Your task to perform on an android device: turn on javascript in the chrome app Image 0: 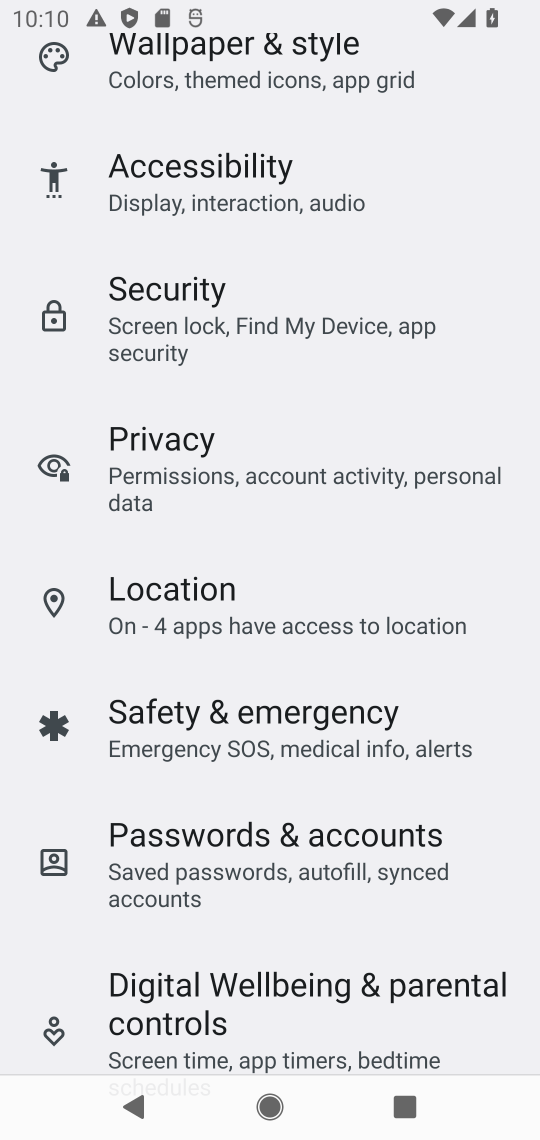
Step 0: press home button
Your task to perform on an android device: turn on javascript in the chrome app Image 1: 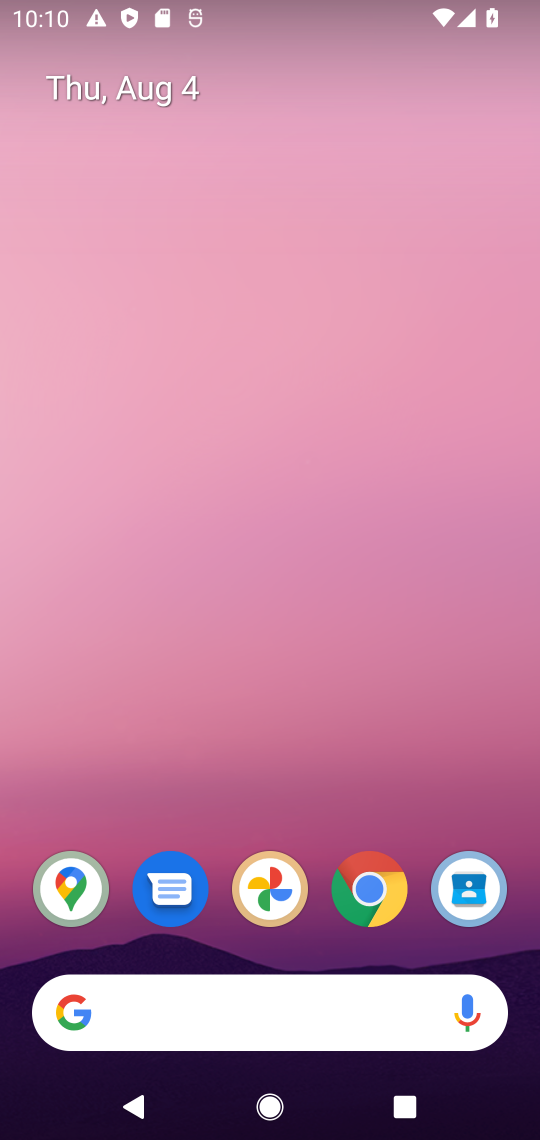
Step 1: drag from (431, 787) to (425, 274)
Your task to perform on an android device: turn on javascript in the chrome app Image 2: 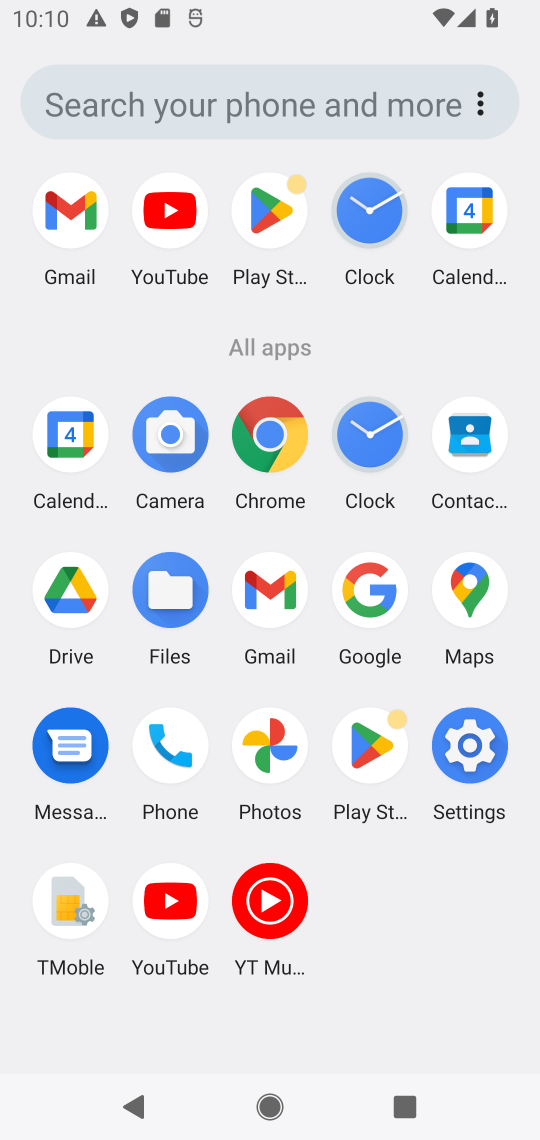
Step 2: click (270, 451)
Your task to perform on an android device: turn on javascript in the chrome app Image 3: 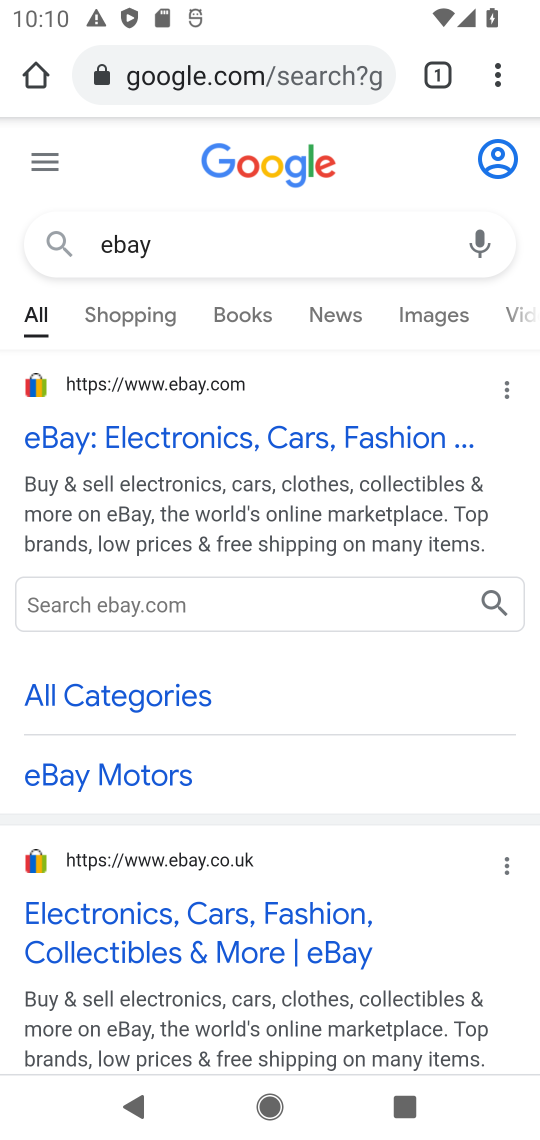
Step 3: click (495, 82)
Your task to perform on an android device: turn on javascript in the chrome app Image 4: 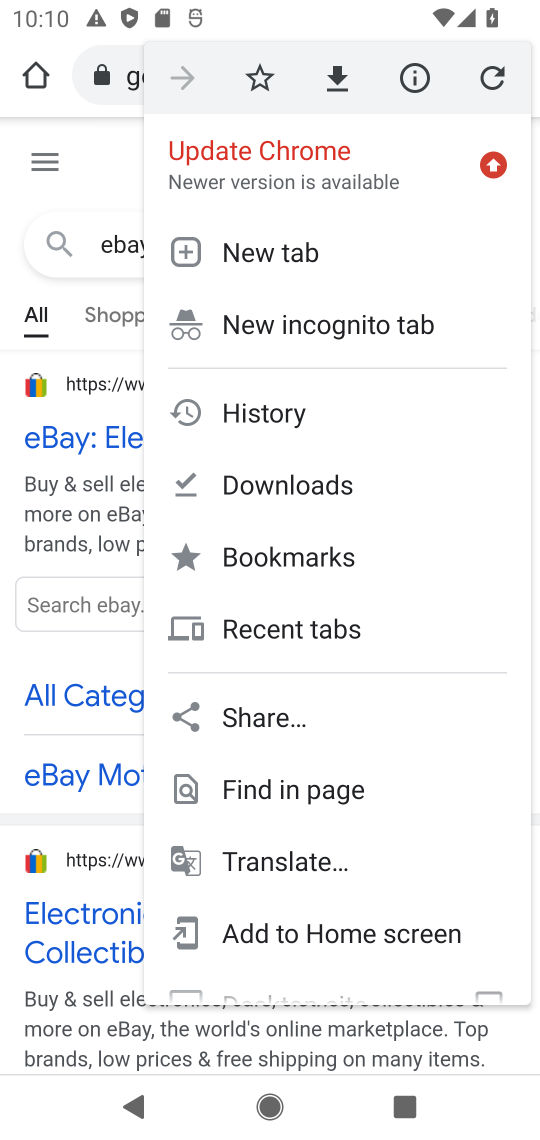
Step 4: drag from (427, 722) to (446, 542)
Your task to perform on an android device: turn on javascript in the chrome app Image 5: 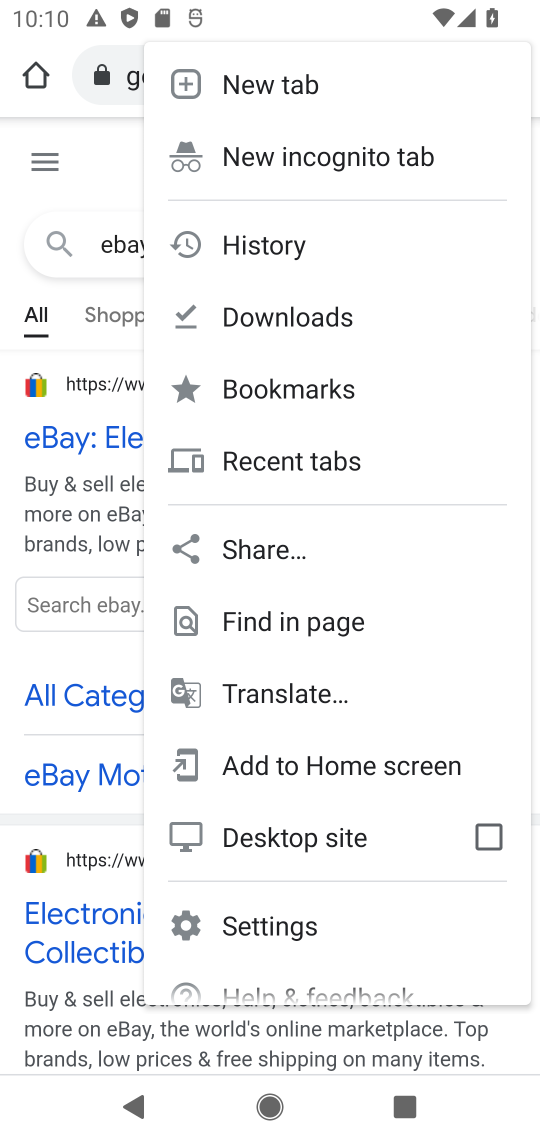
Step 5: drag from (423, 826) to (431, 650)
Your task to perform on an android device: turn on javascript in the chrome app Image 6: 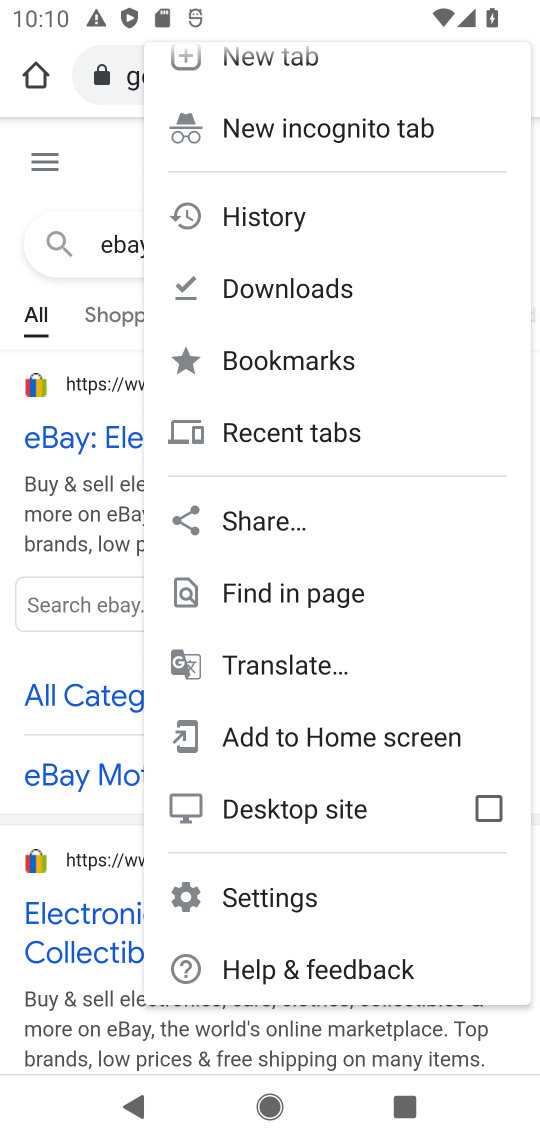
Step 6: click (286, 902)
Your task to perform on an android device: turn on javascript in the chrome app Image 7: 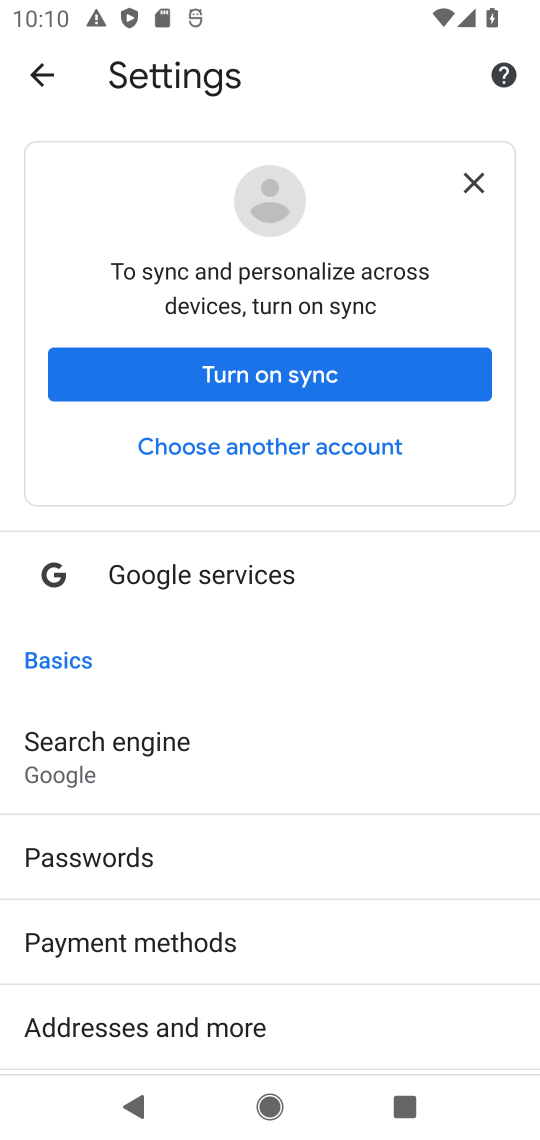
Step 7: drag from (356, 951) to (381, 743)
Your task to perform on an android device: turn on javascript in the chrome app Image 8: 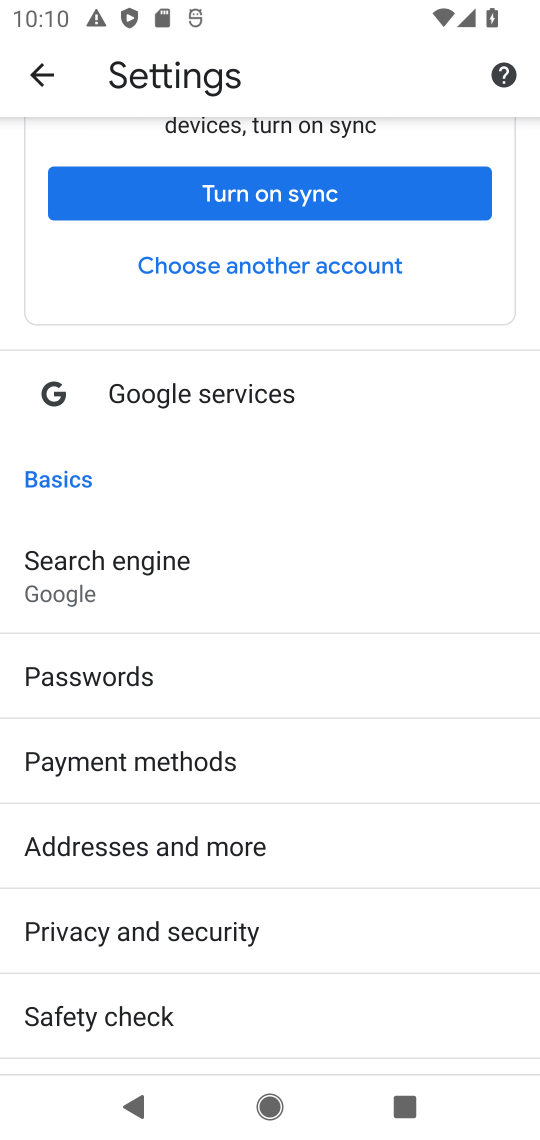
Step 8: drag from (384, 939) to (390, 711)
Your task to perform on an android device: turn on javascript in the chrome app Image 9: 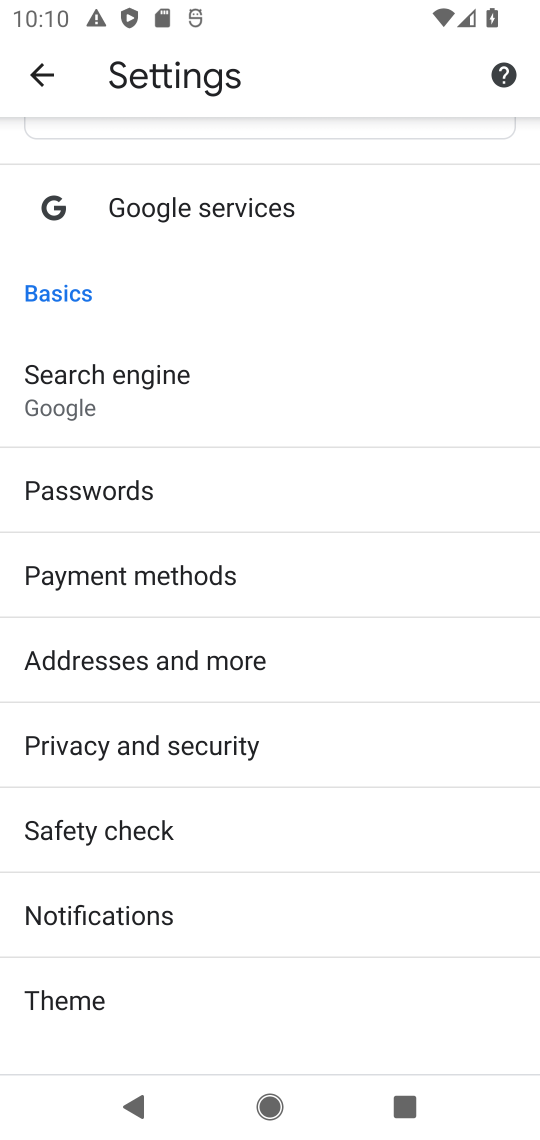
Step 9: drag from (386, 827) to (405, 629)
Your task to perform on an android device: turn on javascript in the chrome app Image 10: 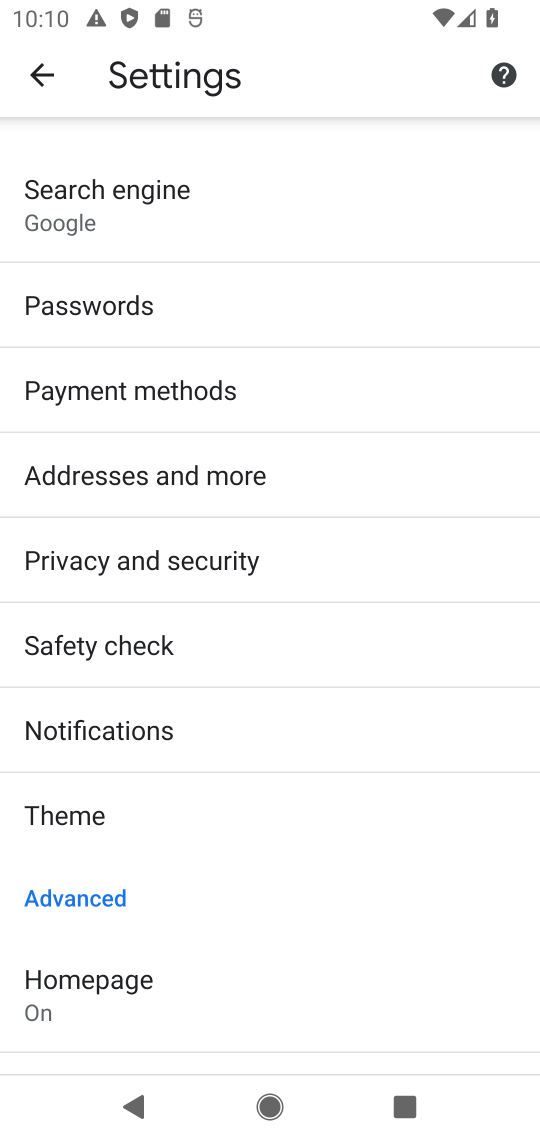
Step 10: drag from (391, 823) to (409, 623)
Your task to perform on an android device: turn on javascript in the chrome app Image 11: 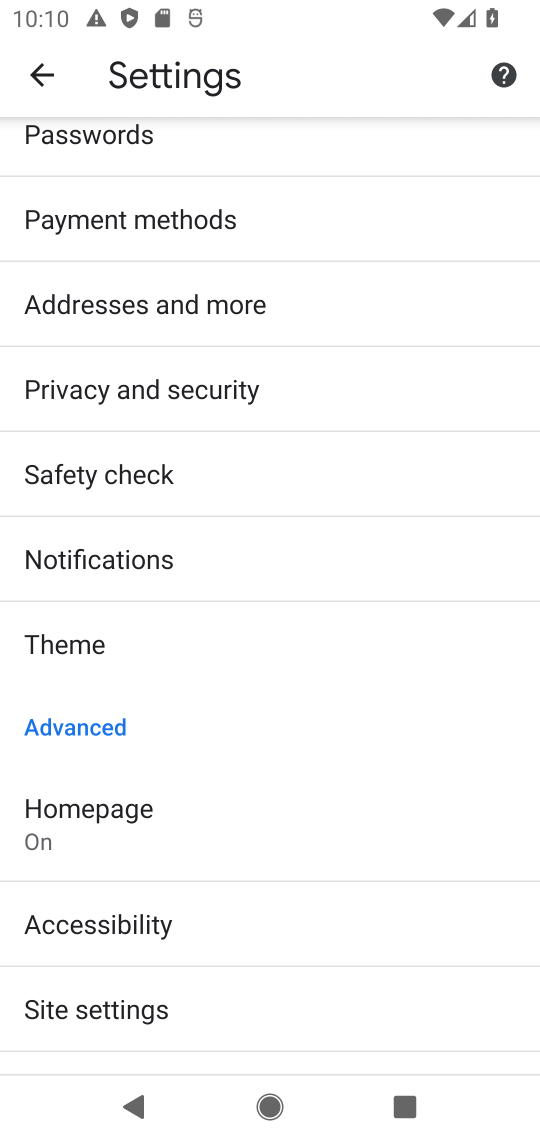
Step 11: drag from (387, 891) to (401, 708)
Your task to perform on an android device: turn on javascript in the chrome app Image 12: 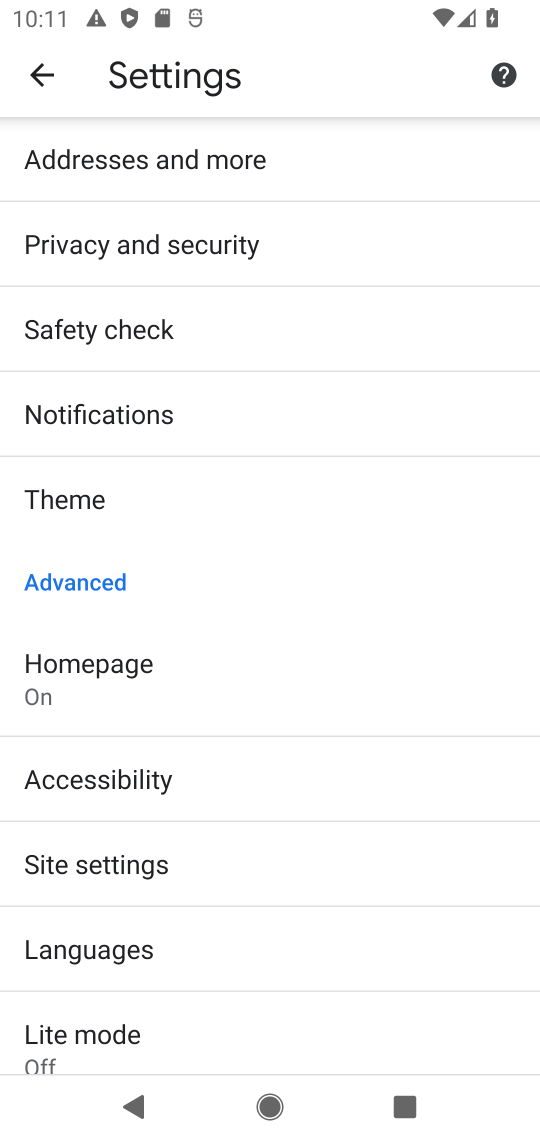
Step 12: drag from (362, 921) to (370, 698)
Your task to perform on an android device: turn on javascript in the chrome app Image 13: 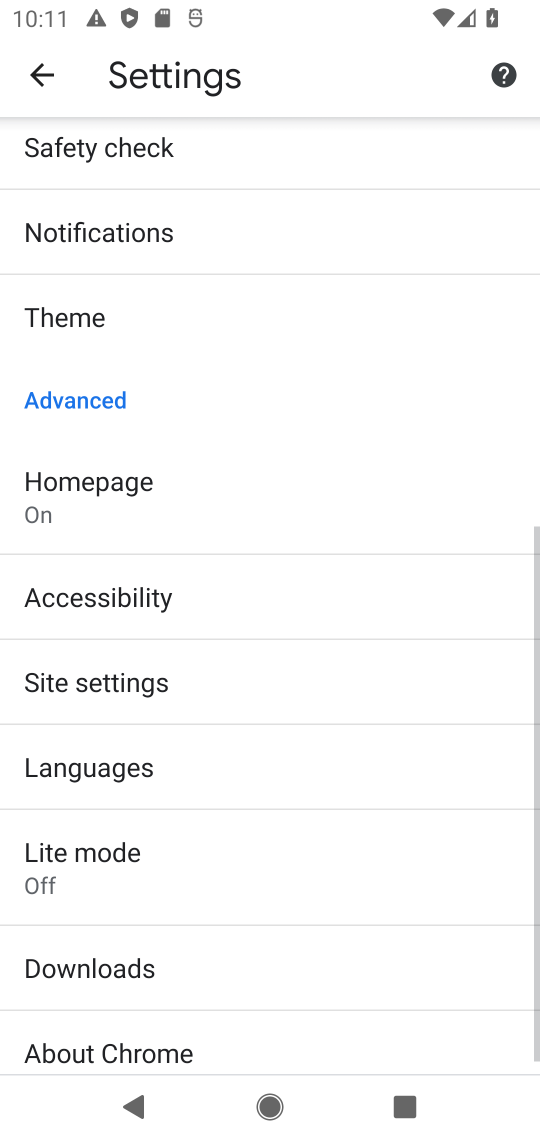
Step 13: drag from (366, 960) to (393, 751)
Your task to perform on an android device: turn on javascript in the chrome app Image 14: 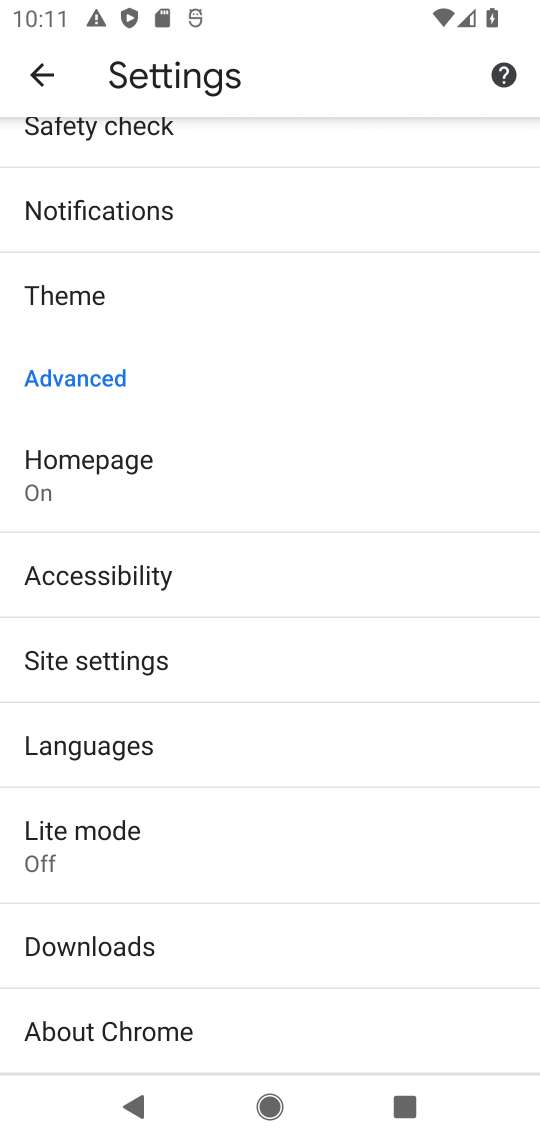
Step 14: drag from (327, 429) to (341, 594)
Your task to perform on an android device: turn on javascript in the chrome app Image 15: 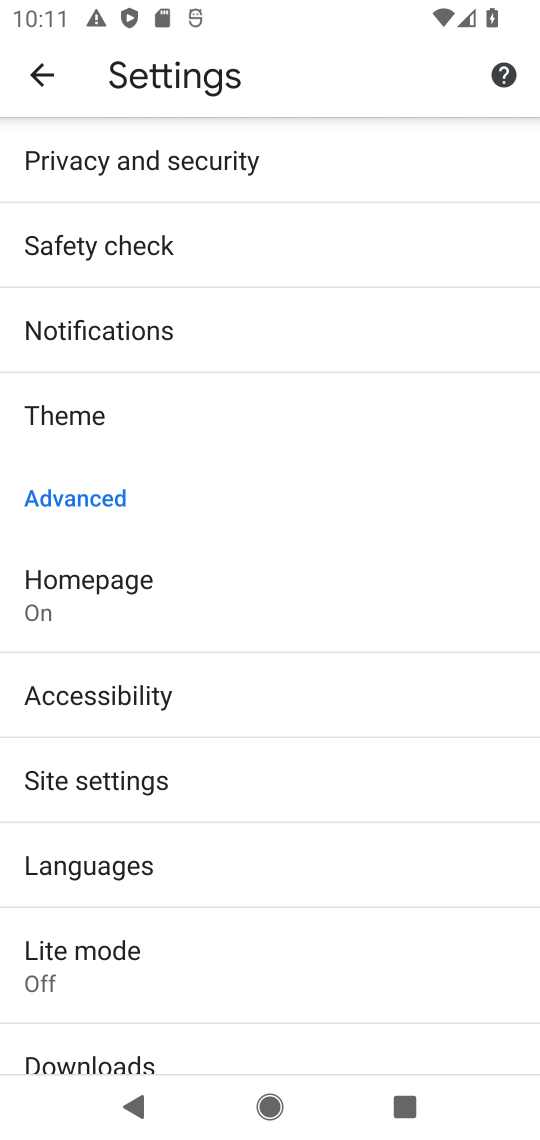
Step 15: drag from (334, 374) to (345, 555)
Your task to perform on an android device: turn on javascript in the chrome app Image 16: 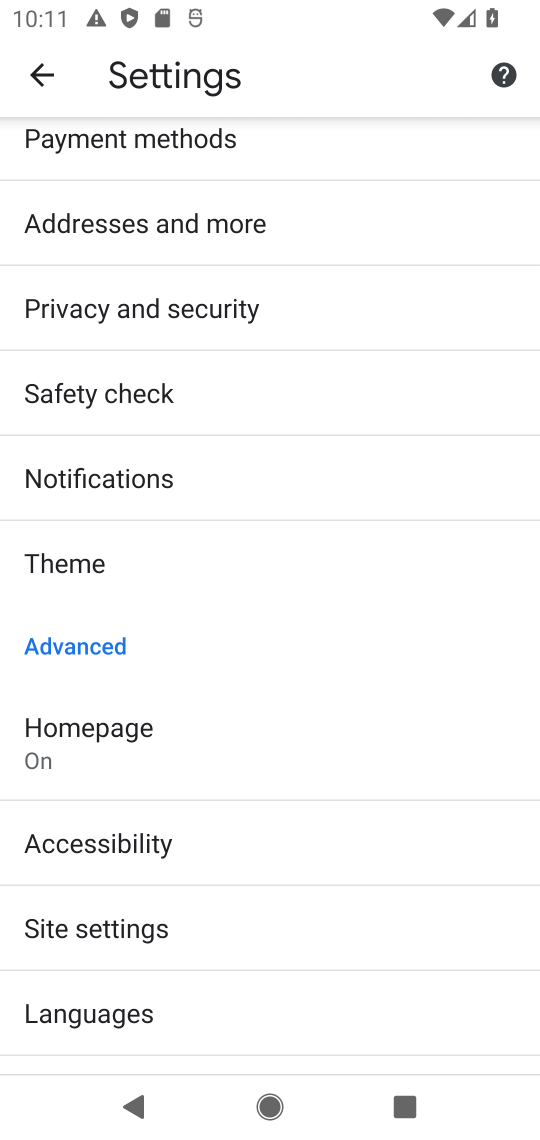
Step 16: click (372, 910)
Your task to perform on an android device: turn on javascript in the chrome app Image 17: 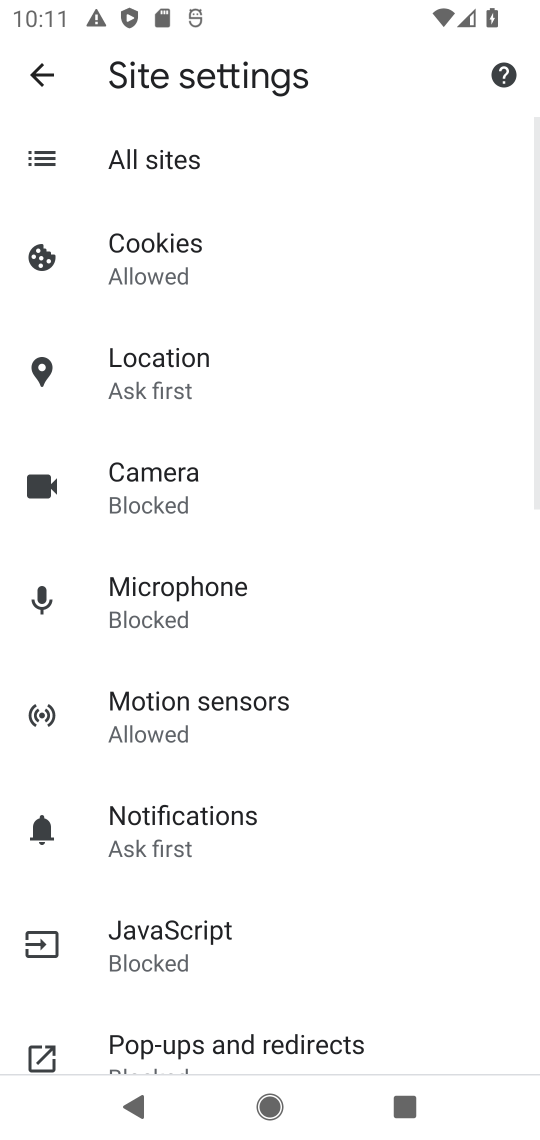
Step 17: drag from (372, 910) to (382, 718)
Your task to perform on an android device: turn on javascript in the chrome app Image 18: 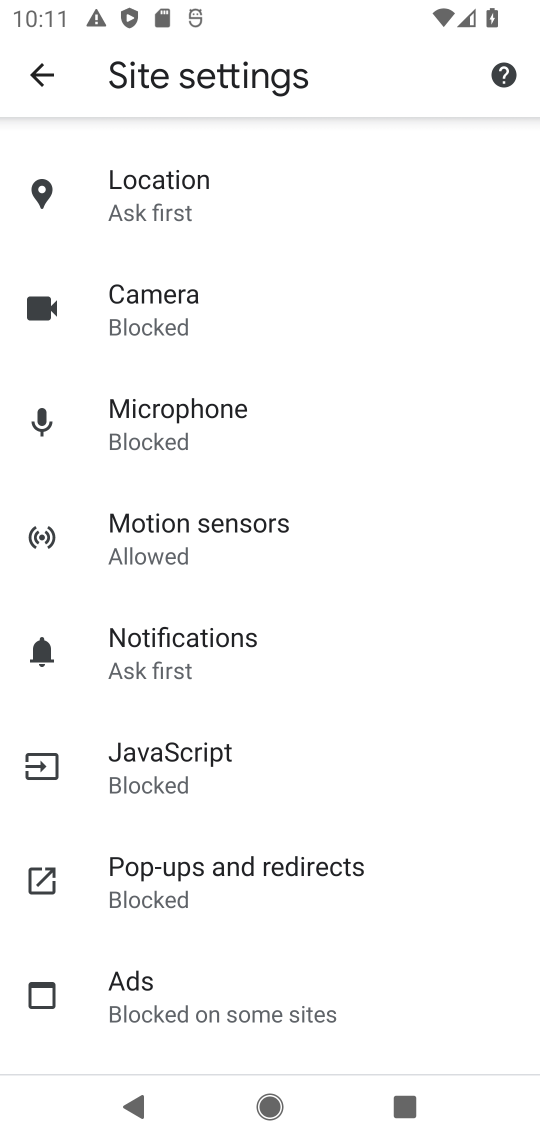
Step 18: drag from (379, 947) to (401, 762)
Your task to perform on an android device: turn on javascript in the chrome app Image 19: 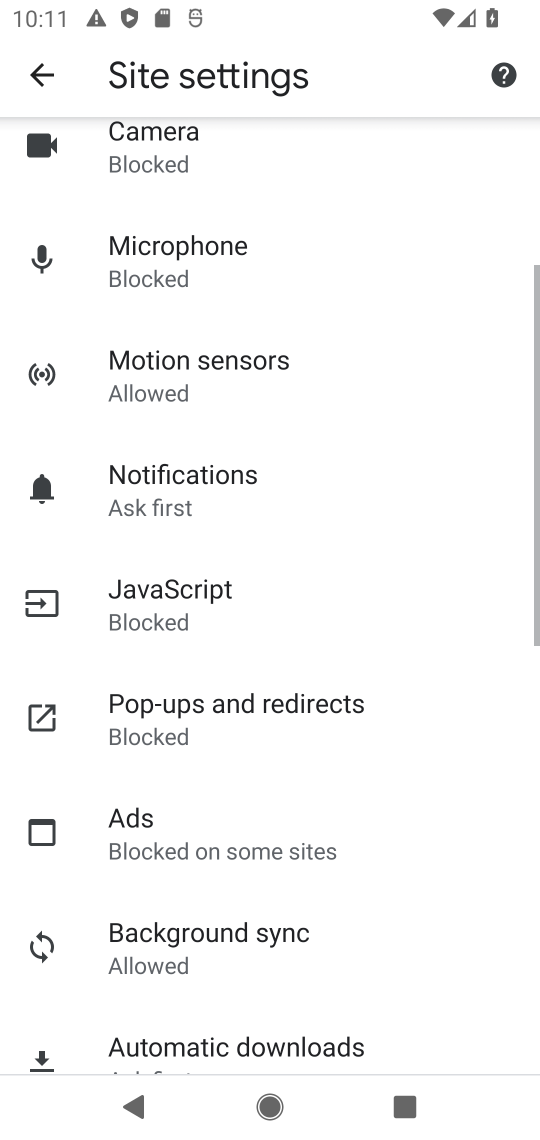
Step 19: click (285, 592)
Your task to perform on an android device: turn on javascript in the chrome app Image 20: 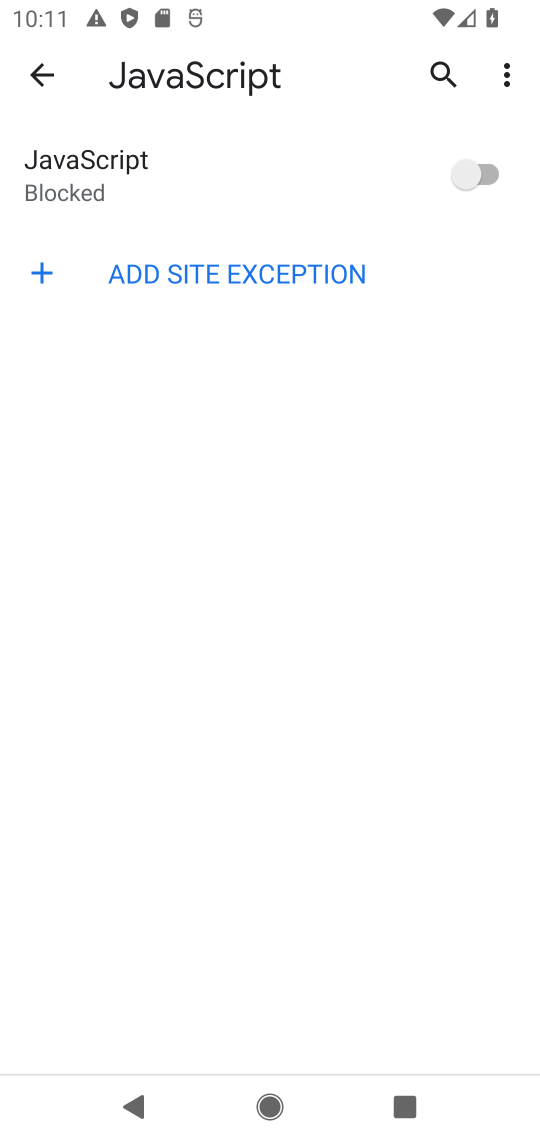
Step 20: click (456, 180)
Your task to perform on an android device: turn on javascript in the chrome app Image 21: 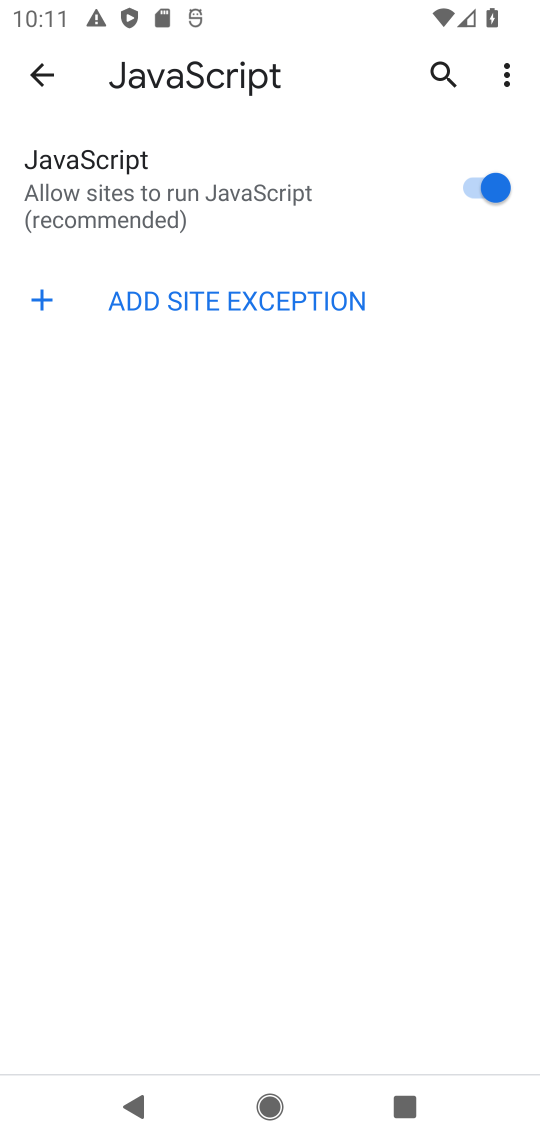
Step 21: task complete